Your task to perform on an android device: uninstall "Speedtest by Ookla" Image 0: 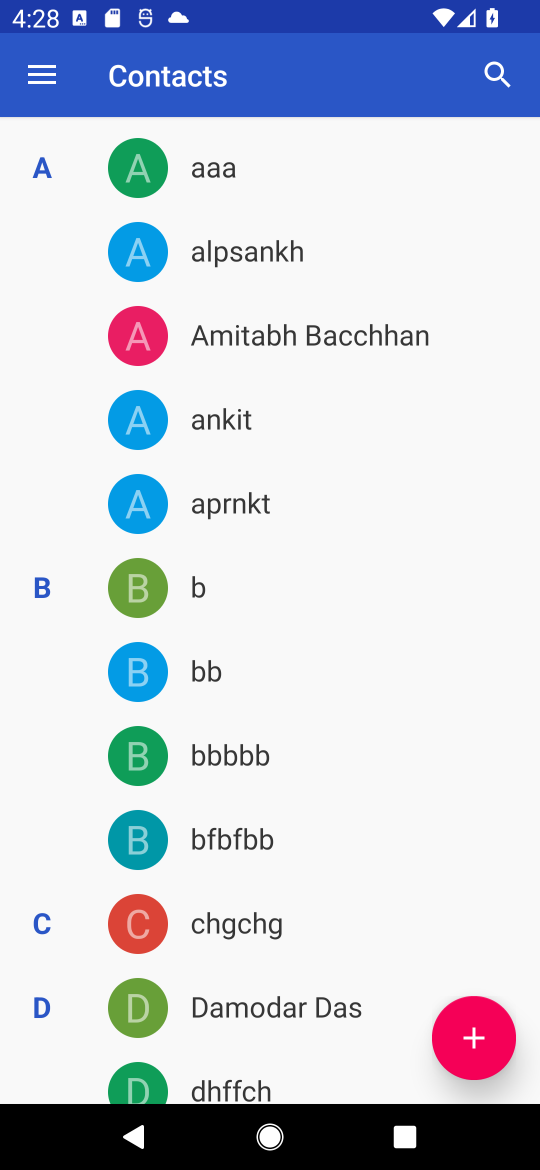
Step 0: press home button
Your task to perform on an android device: uninstall "Speedtest by Ookla" Image 1: 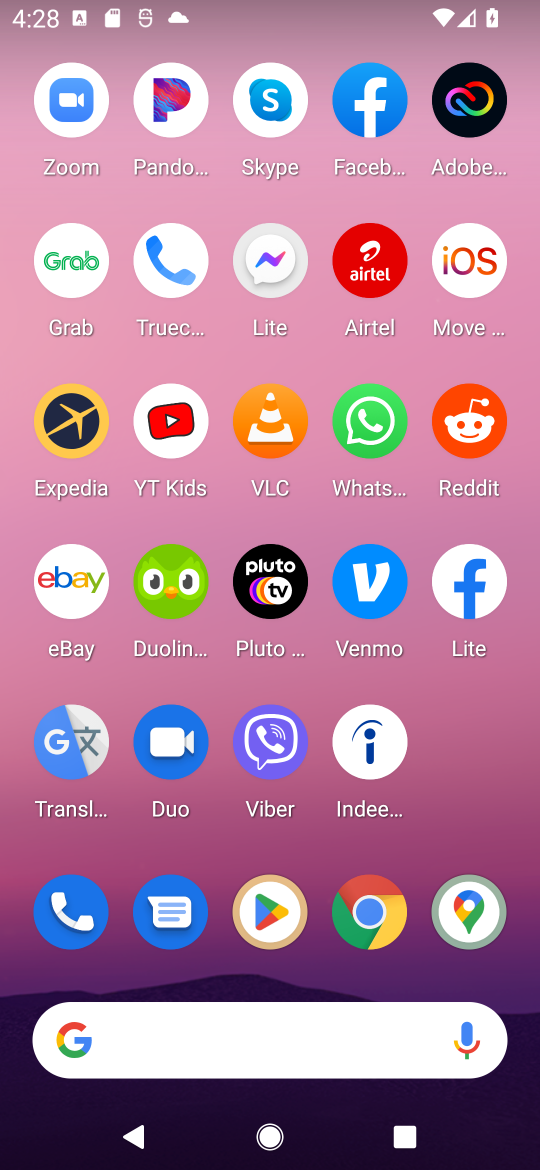
Step 1: drag from (218, 410) to (170, 13)
Your task to perform on an android device: uninstall "Speedtest by Ookla" Image 2: 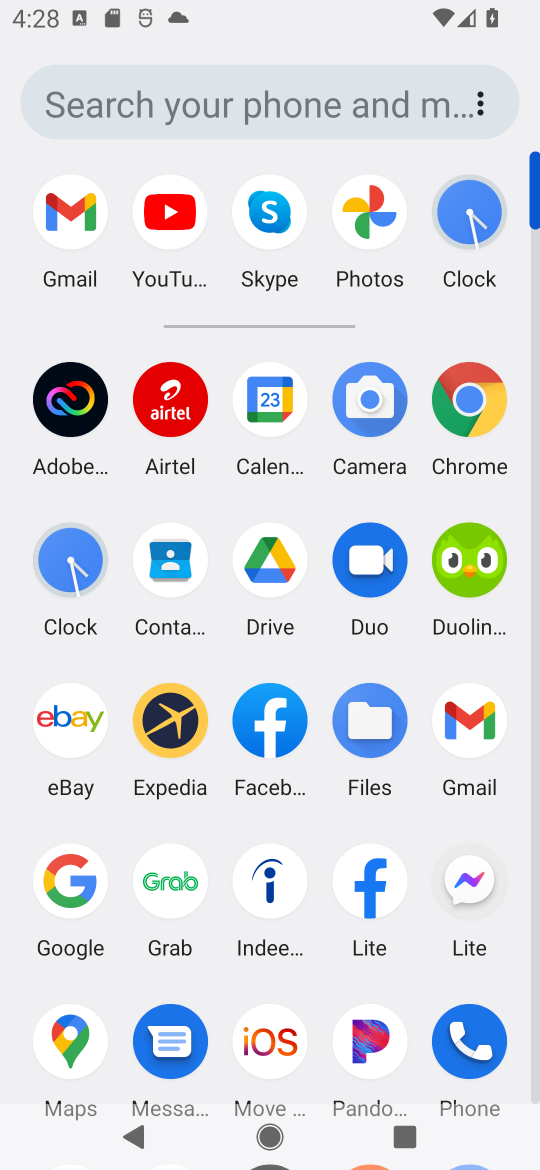
Step 2: drag from (230, 988) to (247, 418)
Your task to perform on an android device: uninstall "Speedtest by Ookla" Image 3: 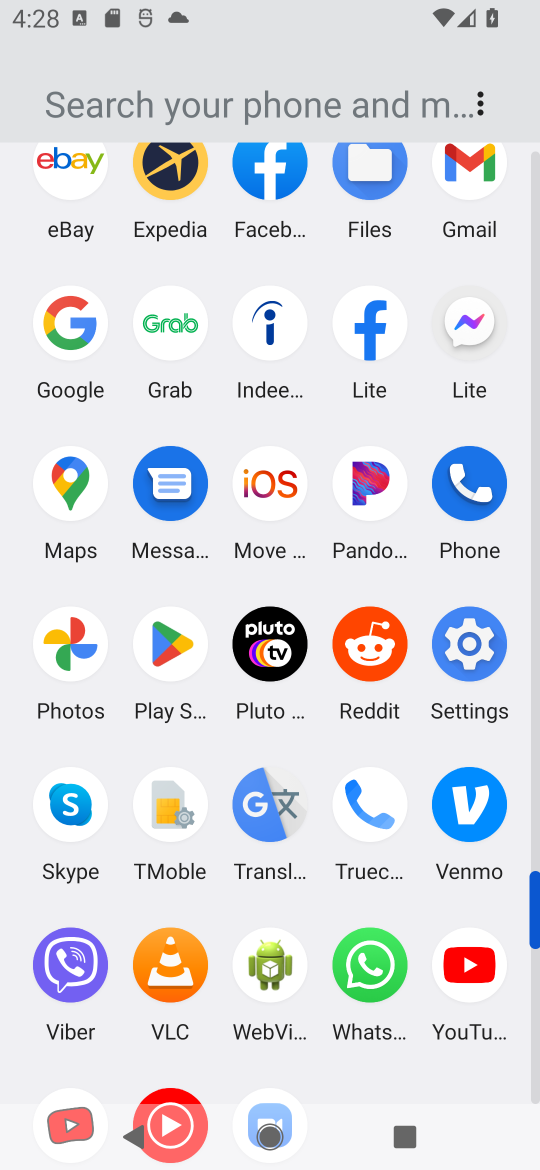
Step 3: click (174, 660)
Your task to perform on an android device: uninstall "Speedtest by Ookla" Image 4: 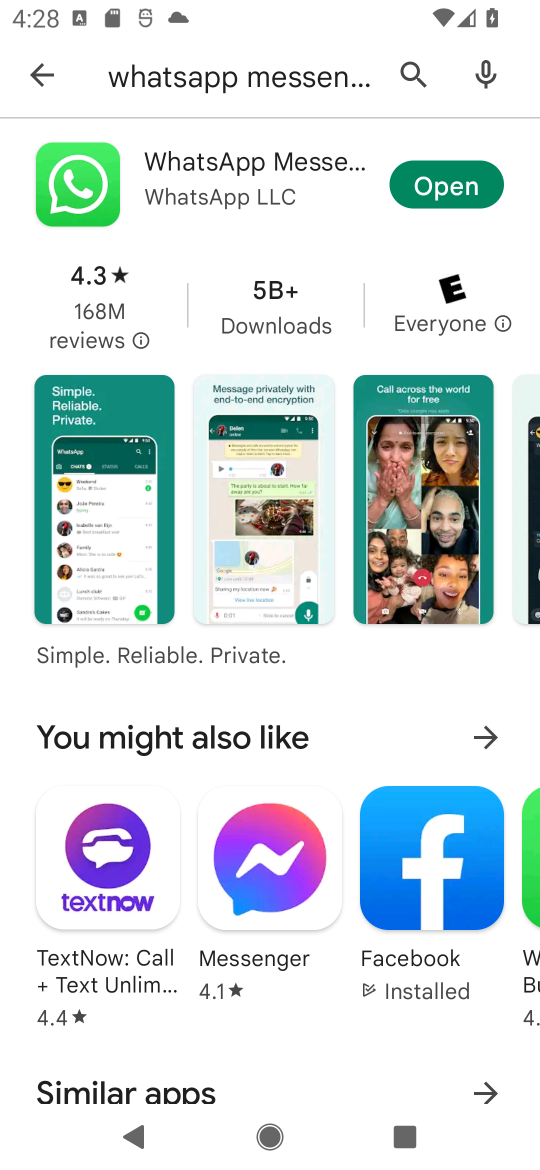
Step 4: press back button
Your task to perform on an android device: uninstall "Speedtest by Ookla" Image 5: 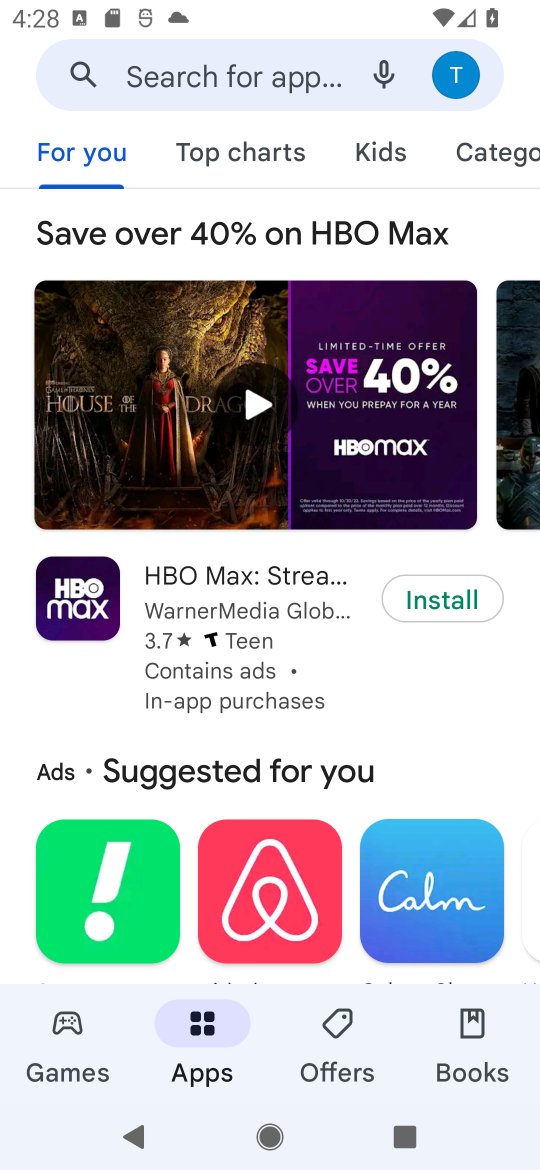
Step 5: click (247, 76)
Your task to perform on an android device: uninstall "Speedtest by Ookla" Image 6: 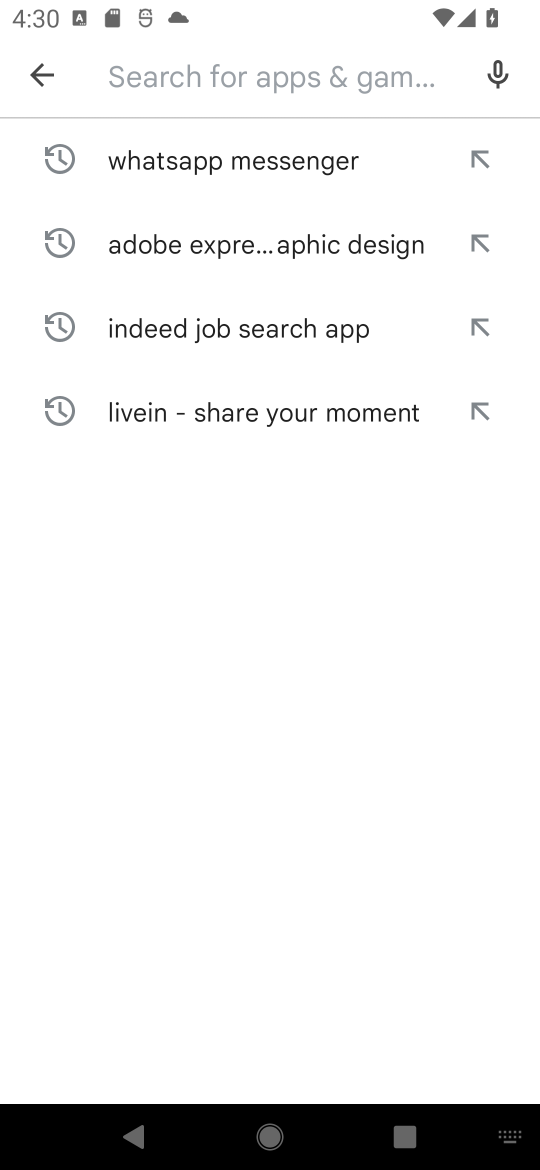
Step 6: click (149, 85)
Your task to perform on an android device: uninstall "Speedtest by Ookla" Image 7: 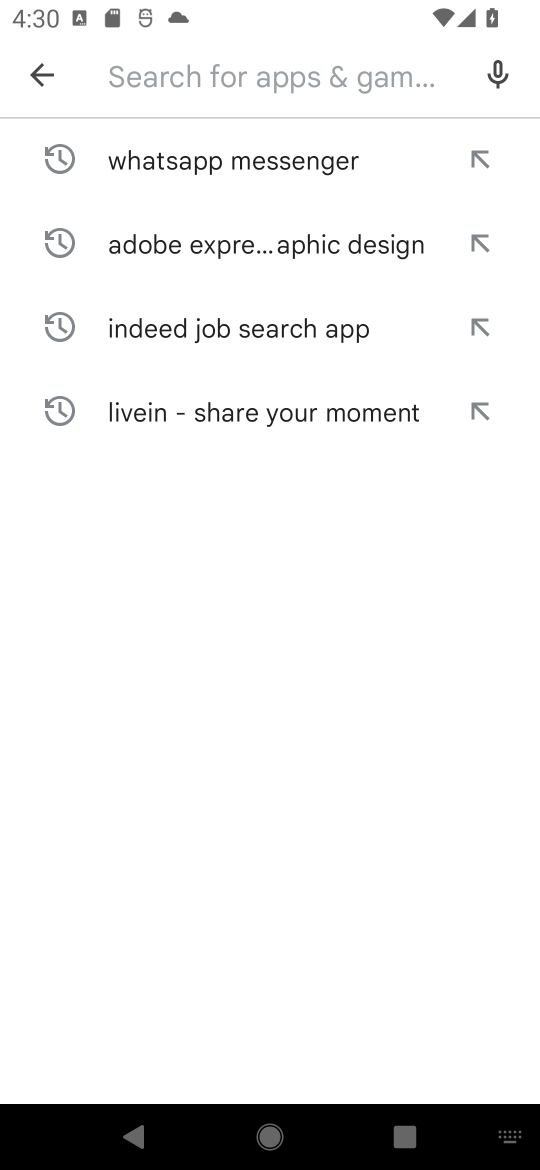
Step 7: type "Speedtest by Ookla"
Your task to perform on an android device: uninstall "Speedtest by Ookla" Image 8: 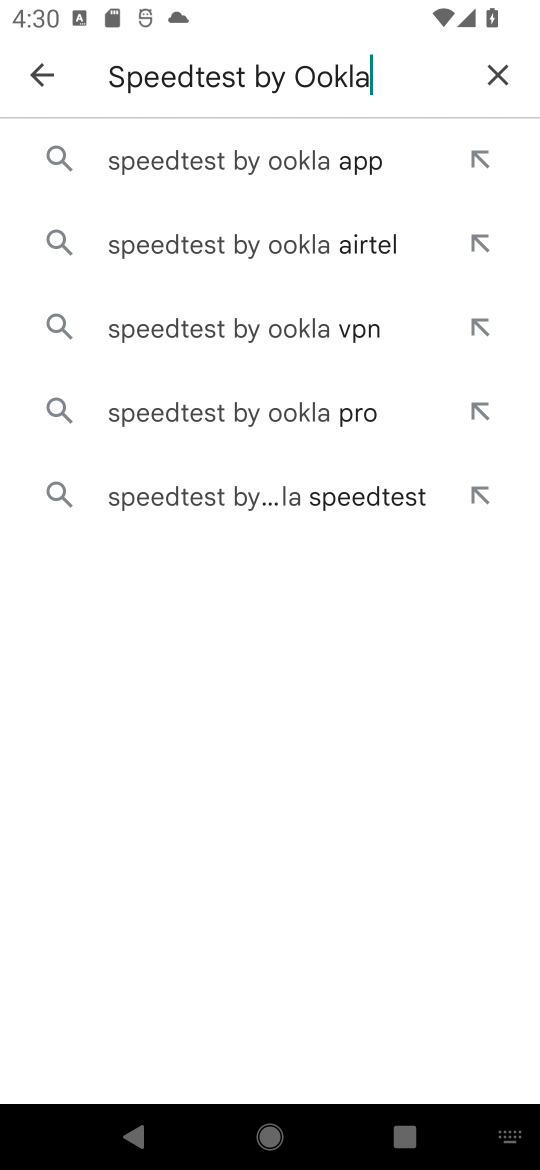
Step 8: click (253, 177)
Your task to perform on an android device: uninstall "Speedtest by Ookla" Image 9: 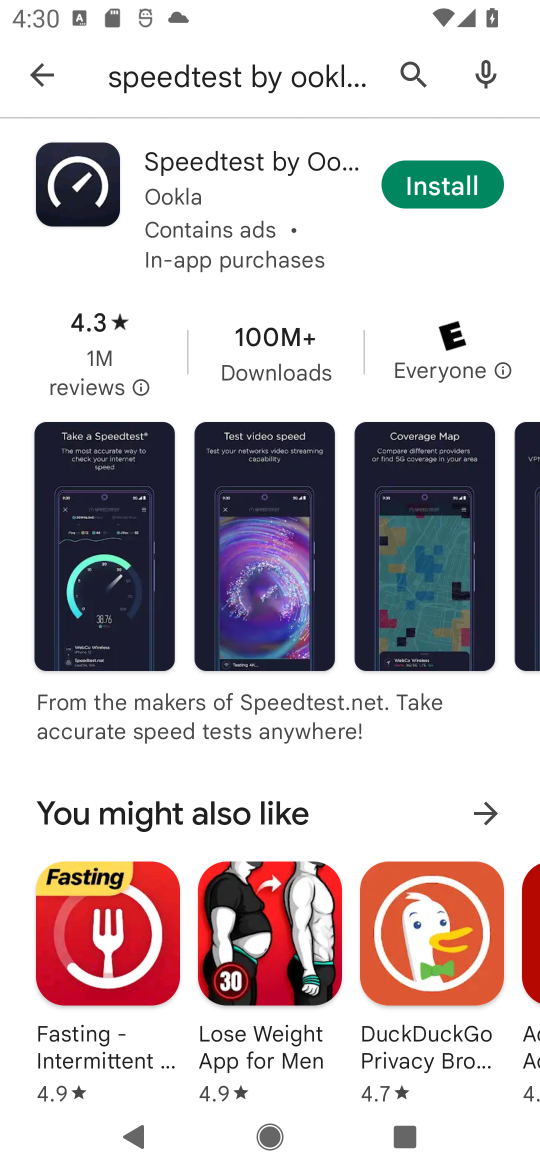
Step 9: task complete